Your task to perform on an android device: Open network settings Image 0: 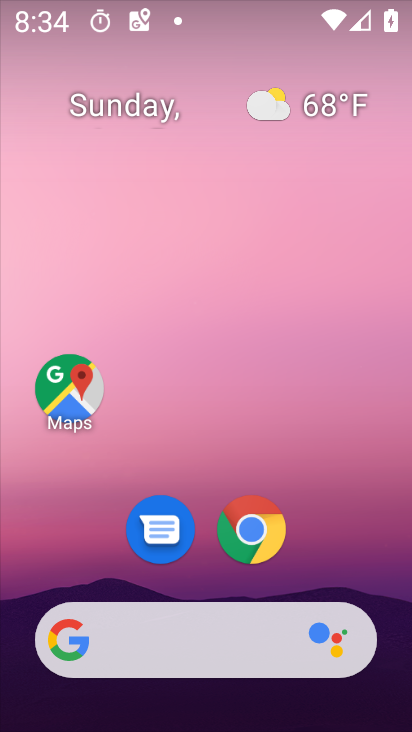
Step 0: drag from (201, 580) to (221, 99)
Your task to perform on an android device: Open network settings Image 1: 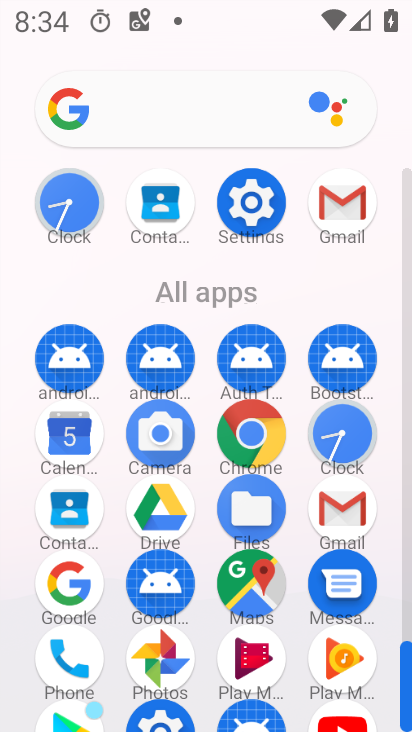
Step 1: click (248, 189)
Your task to perform on an android device: Open network settings Image 2: 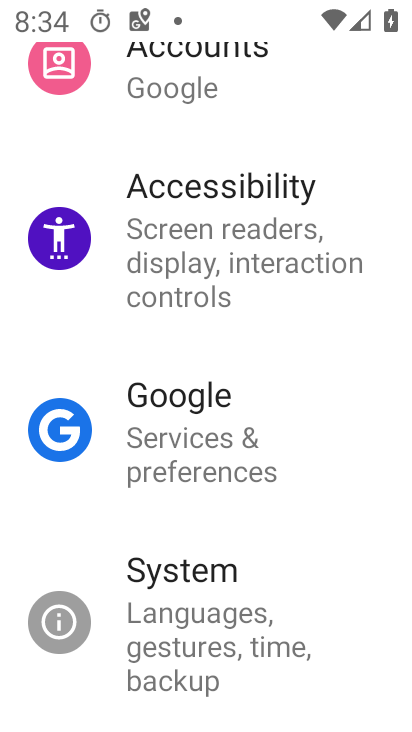
Step 2: drag from (209, 57) to (228, 669)
Your task to perform on an android device: Open network settings Image 3: 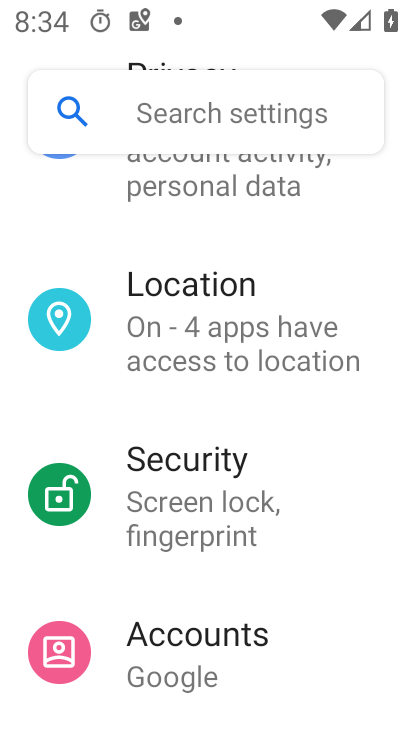
Step 3: drag from (228, 178) to (208, 725)
Your task to perform on an android device: Open network settings Image 4: 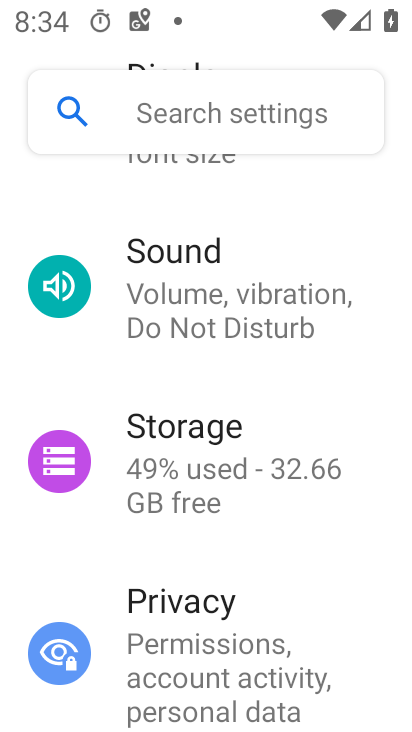
Step 4: drag from (215, 187) to (218, 731)
Your task to perform on an android device: Open network settings Image 5: 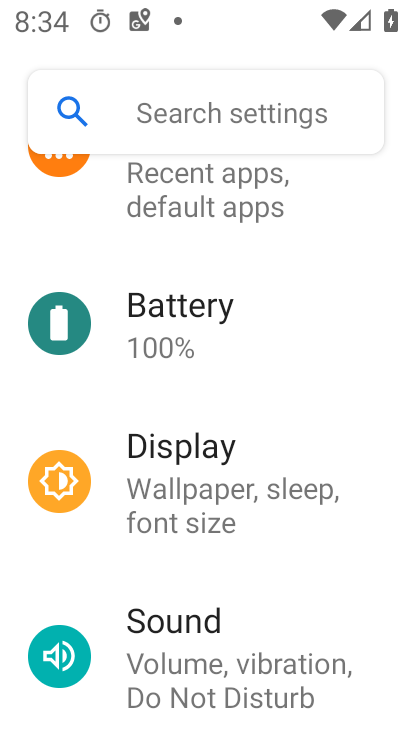
Step 5: drag from (219, 196) to (229, 721)
Your task to perform on an android device: Open network settings Image 6: 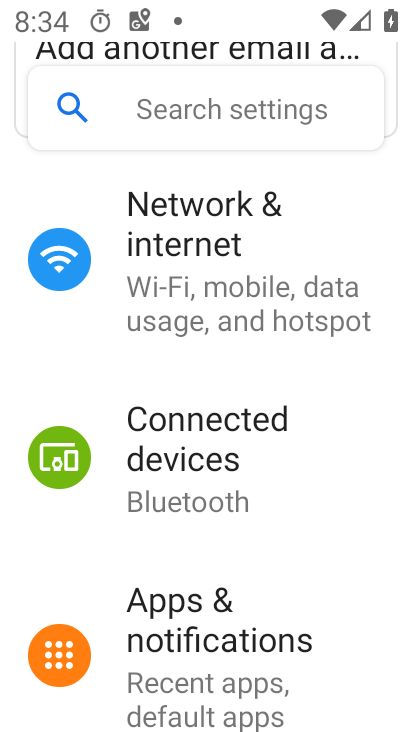
Step 6: click (245, 269)
Your task to perform on an android device: Open network settings Image 7: 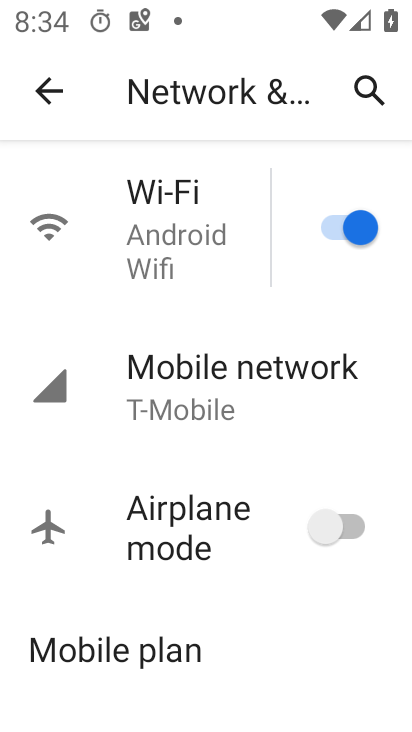
Step 7: drag from (190, 602) to (236, 174)
Your task to perform on an android device: Open network settings Image 8: 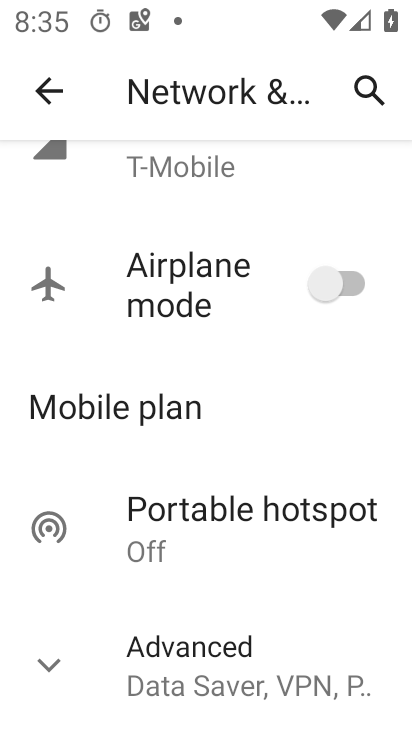
Step 8: click (58, 662)
Your task to perform on an android device: Open network settings Image 9: 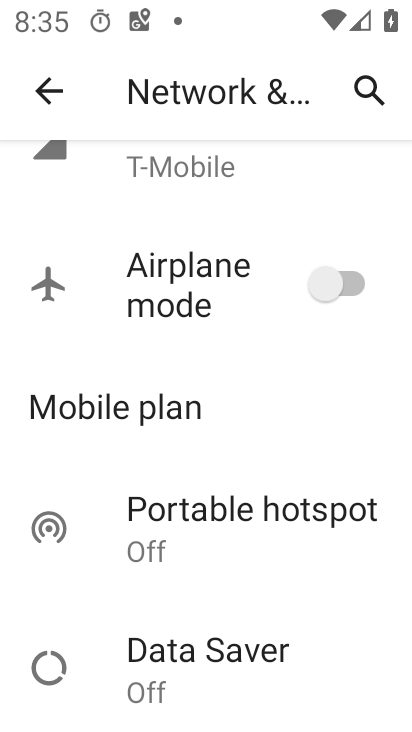
Step 9: task complete